Your task to perform on an android device: change timer sound Image 0: 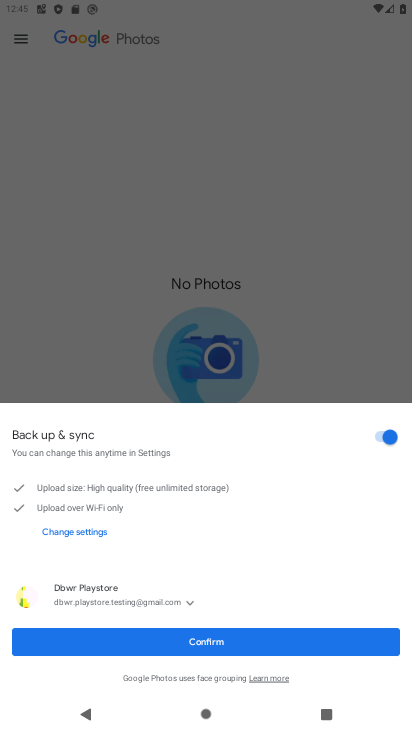
Step 0: press home button
Your task to perform on an android device: change timer sound Image 1: 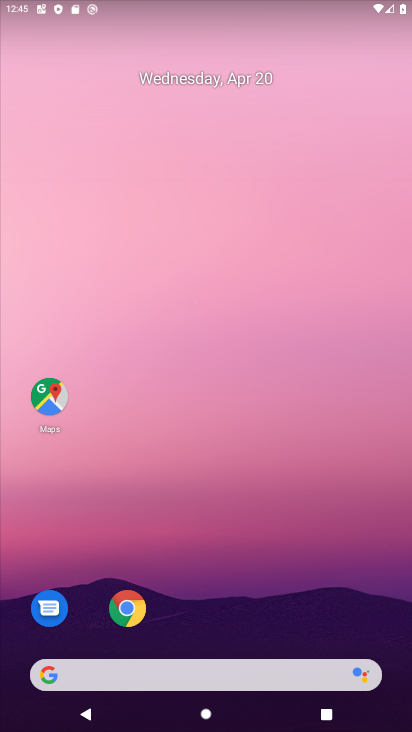
Step 1: drag from (332, 581) to (251, 113)
Your task to perform on an android device: change timer sound Image 2: 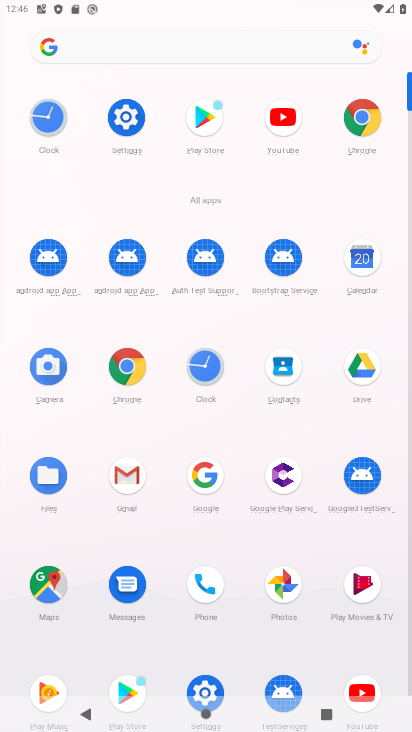
Step 2: click (50, 118)
Your task to perform on an android device: change timer sound Image 3: 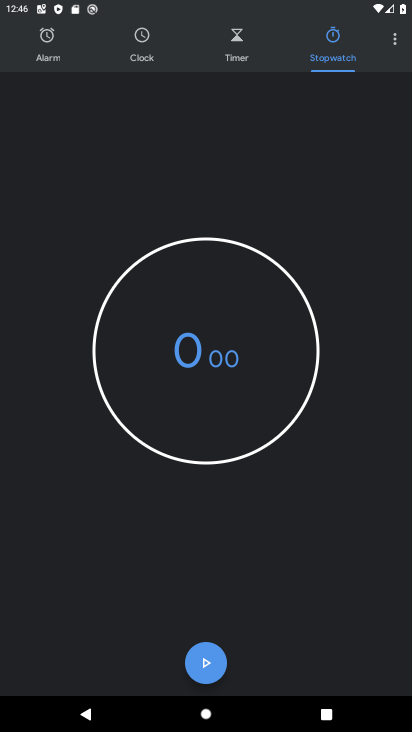
Step 3: click (401, 43)
Your task to perform on an android device: change timer sound Image 4: 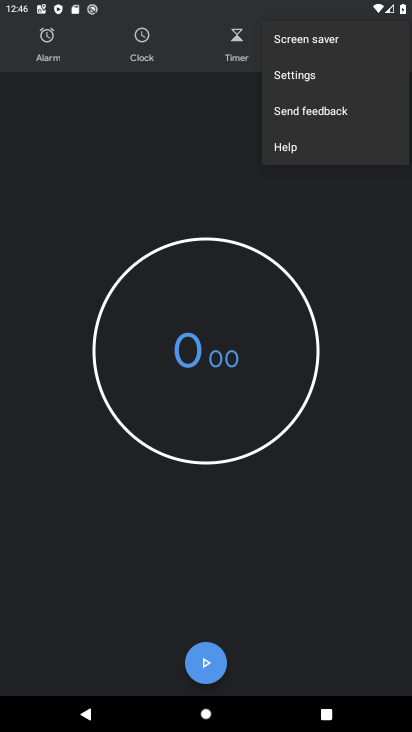
Step 4: click (363, 71)
Your task to perform on an android device: change timer sound Image 5: 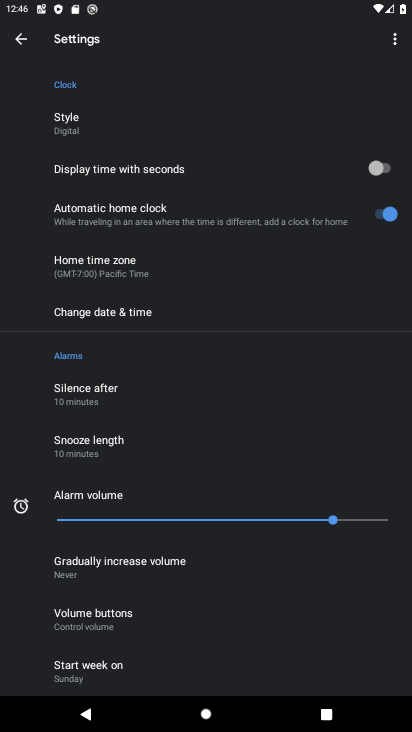
Step 5: drag from (241, 607) to (246, 249)
Your task to perform on an android device: change timer sound Image 6: 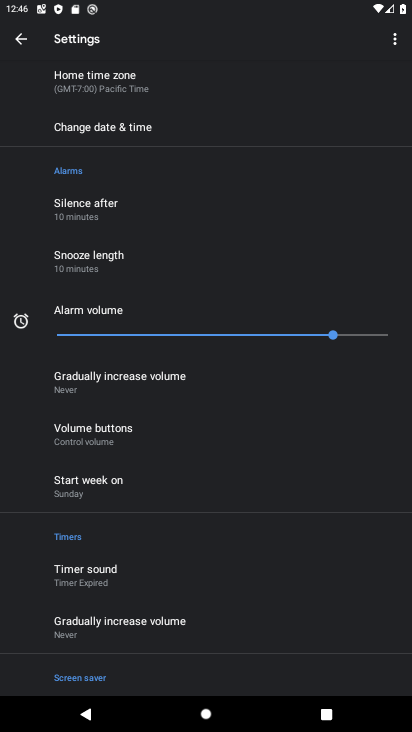
Step 6: click (144, 587)
Your task to perform on an android device: change timer sound Image 7: 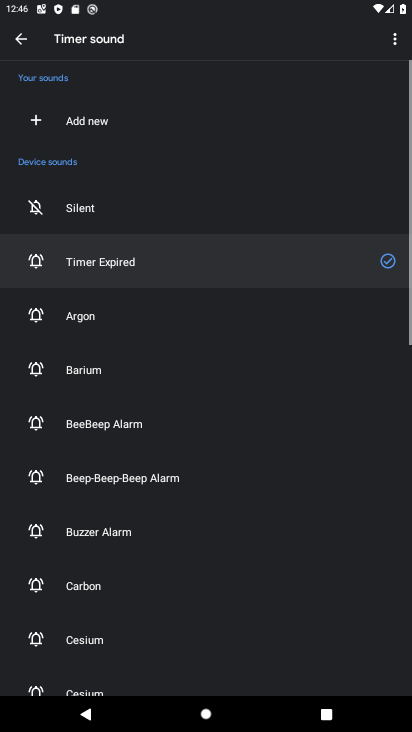
Step 7: click (135, 587)
Your task to perform on an android device: change timer sound Image 8: 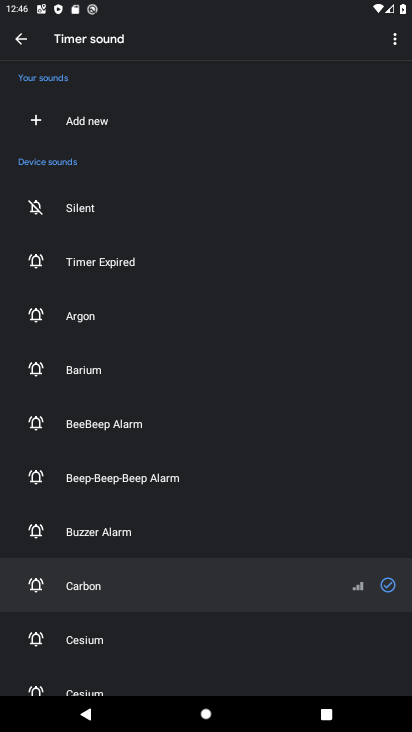
Step 8: task complete